Your task to perform on an android device: open app "Fetch Rewards" Image 0: 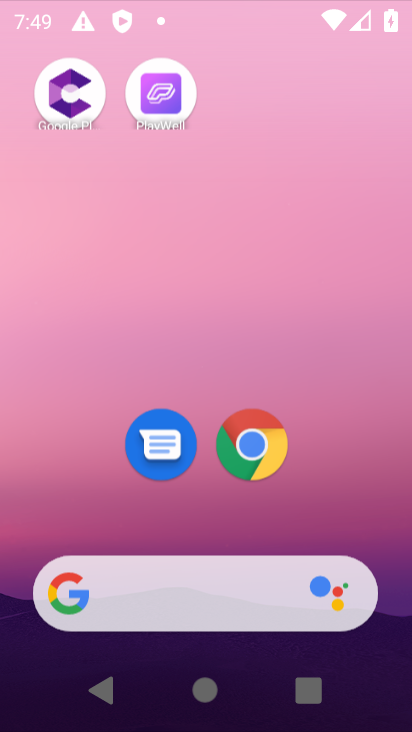
Step 0: drag from (259, 255) to (316, 0)
Your task to perform on an android device: open app "Fetch Rewards" Image 1: 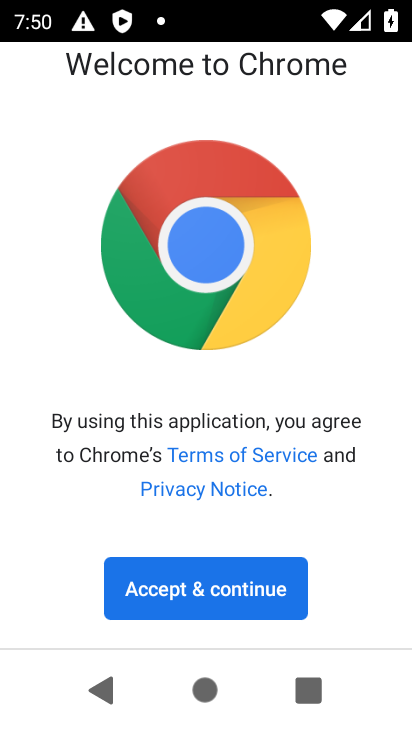
Step 1: press home button
Your task to perform on an android device: open app "Fetch Rewards" Image 2: 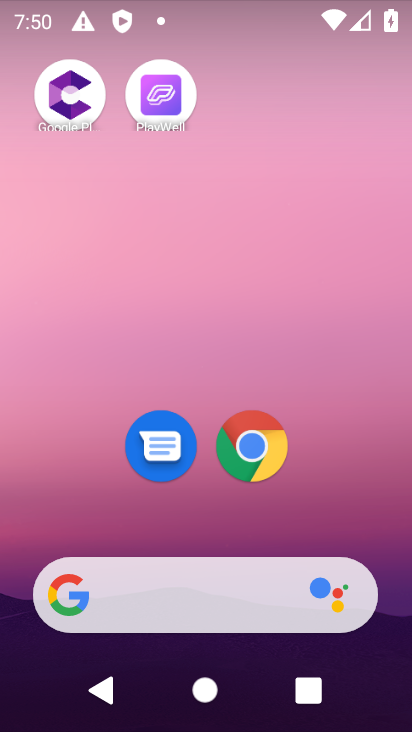
Step 2: drag from (215, 515) to (226, 34)
Your task to perform on an android device: open app "Fetch Rewards" Image 3: 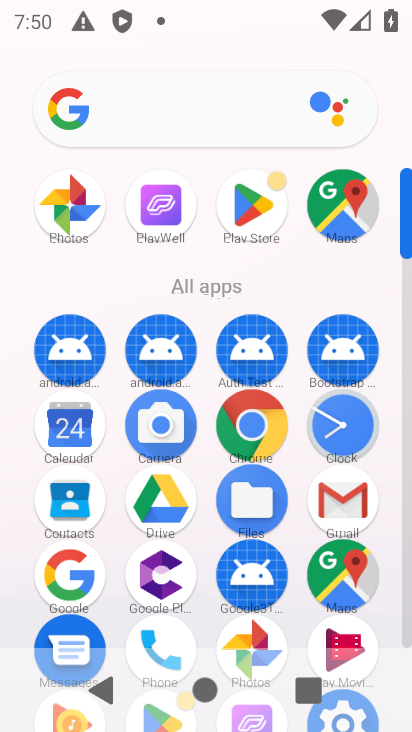
Step 3: click (246, 205)
Your task to perform on an android device: open app "Fetch Rewards" Image 4: 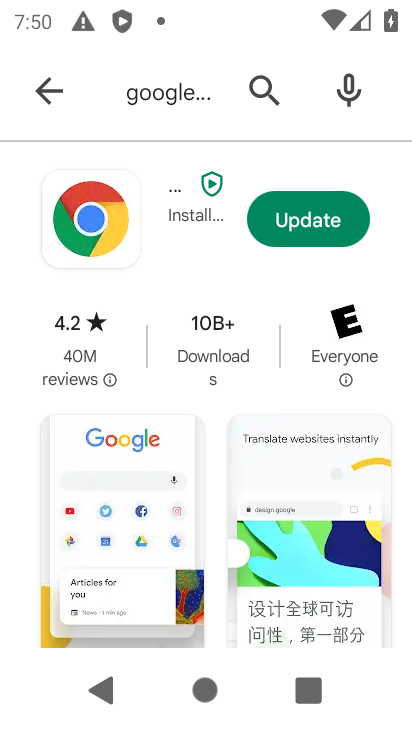
Step 4: click (266, 92)
Your task to perform on an android device: open app "Fetch Rewards" Image 5: 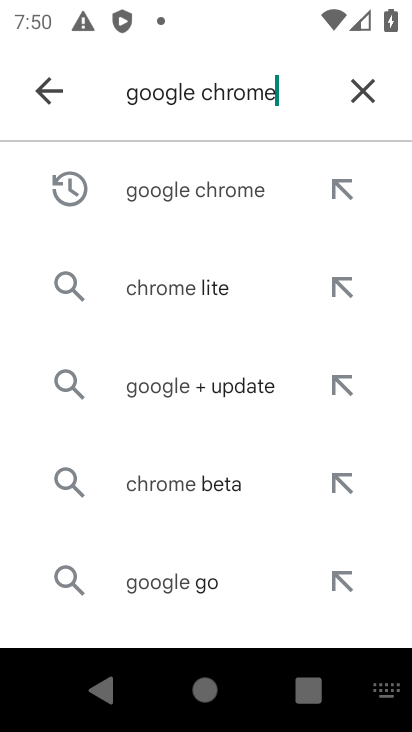
Step 5: click (363, 86)
Your task to perform on an android device: open app "Fetch Rewards" Image 6: 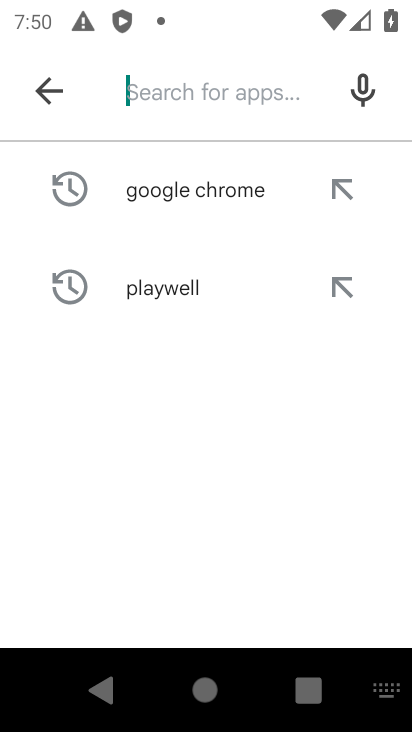
Step 6: type "Fetch Rewards"
Your task to perform on an android device: open app "Fetch Rewards" Image 7: 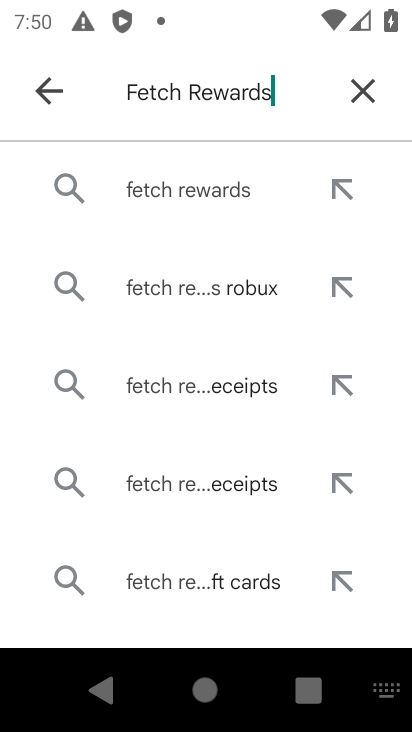
Step 7: click (211, 192)
Your task to perform on an android device: open app "Fetch Rewards" Image 8: 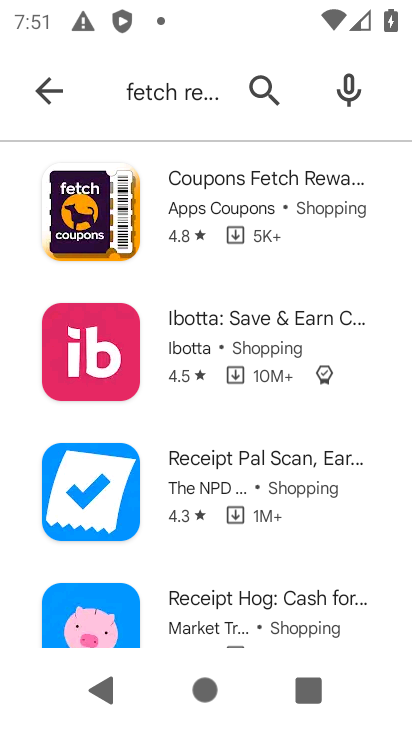
Step 8: task complete